Your task to perform on an android device: delete a single message in the gmail app Image 0: 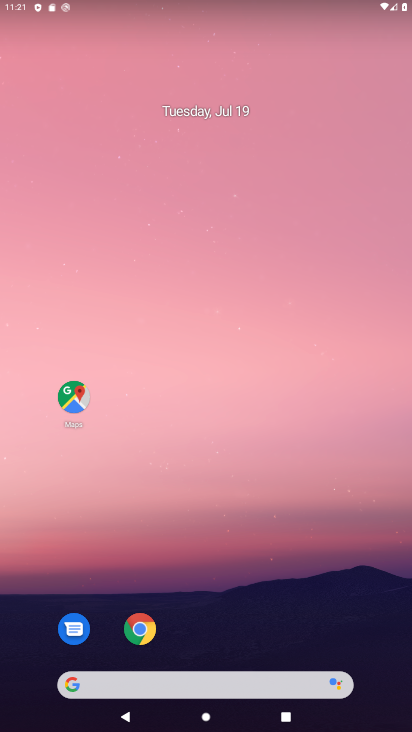
Step 0: drag from (304, 461) to (314, 19)
Your task to perform on an android device: delete a single message in the gmail app Image 1: 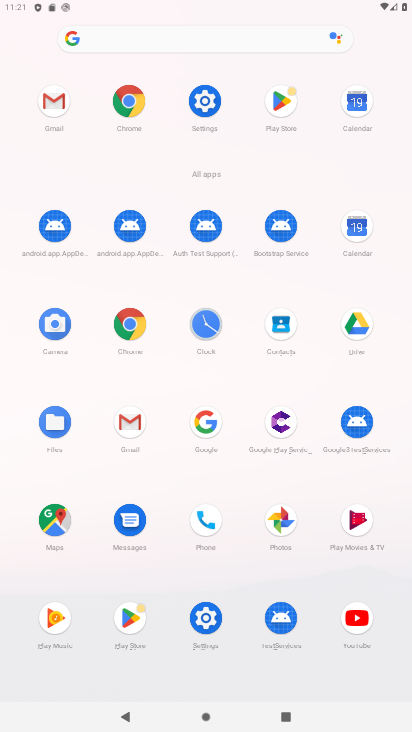
Step 1: click (51, 113)
Your task to perform on an android device: delete a single message in the gmail app Image 2: 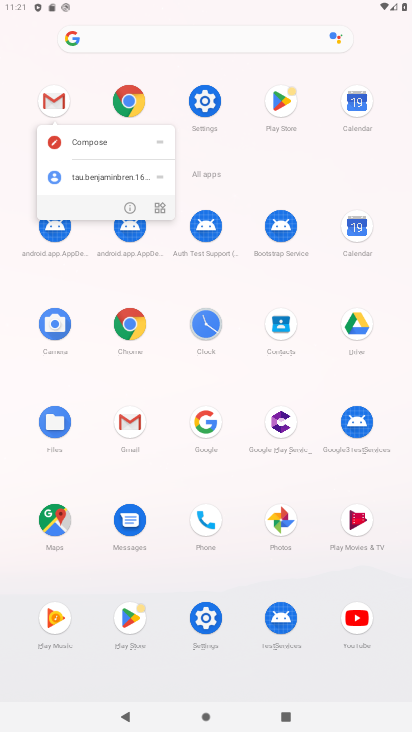
Step 2: click (47, 98)
Your task to perform on an android device: delete a single message in the gmail app Image 3: 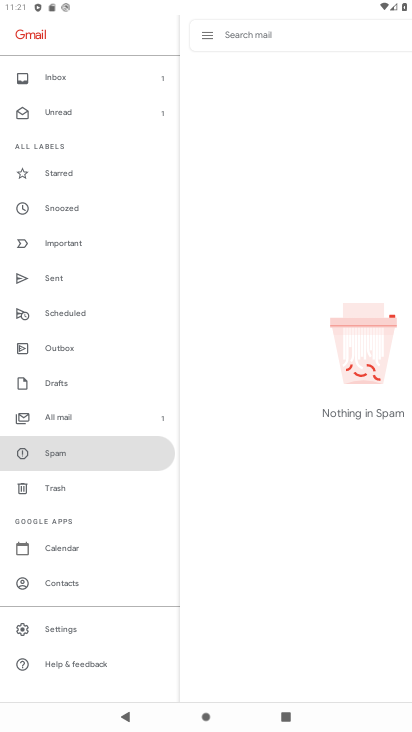
Step 3: click (55, 75)
Your task to perform on an android device: delete a single message in the gmail app Image 4: 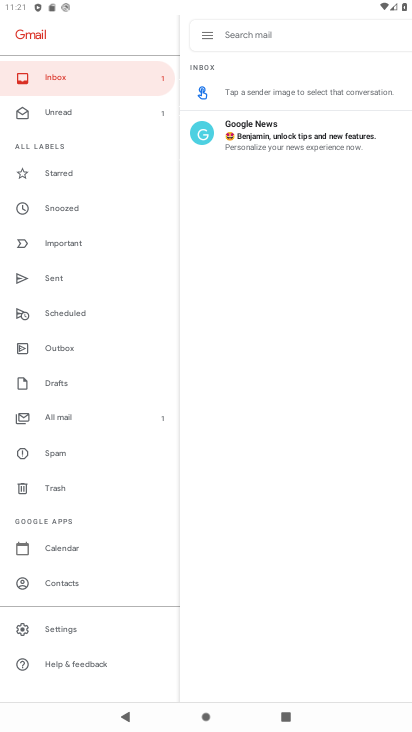
Step 4: click (338, 148)
Your task to perform on an android device: delete a single message in the gmail app Image 5: 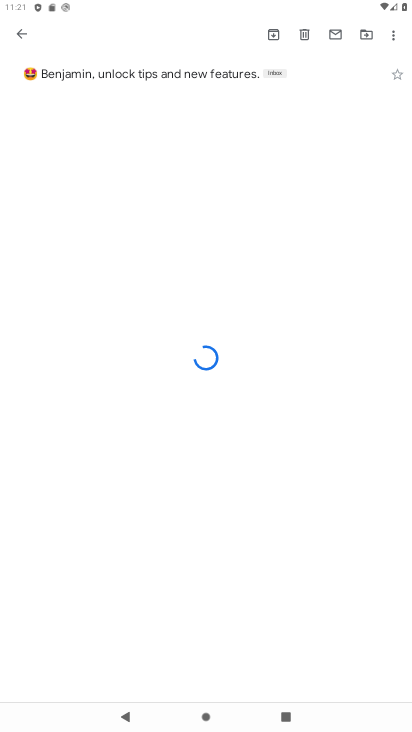
Step 5: click (298, 39)
Your task to perform on an android device: delete a single message in the gmail app Image 6: 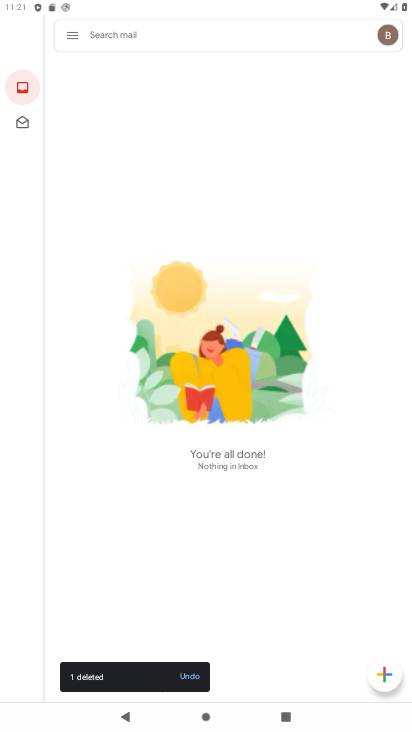
Step 6: task complete